Your task to perform on an android device: change the clock display to show seconds Image 0: 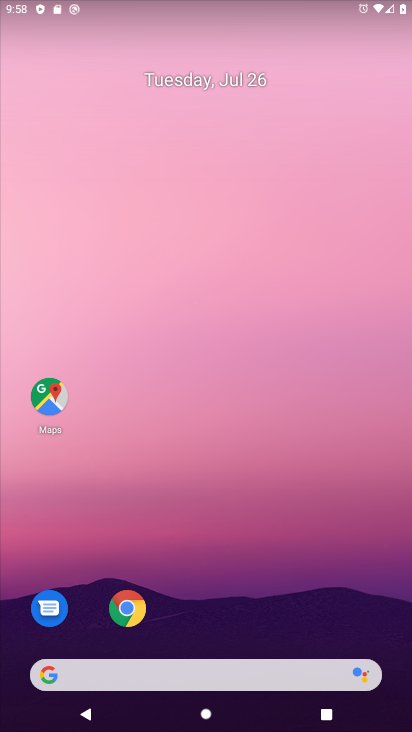
Step 0: drag from (234, 721) to (223, 233)
Your task to perform on an android device: change the clock display to show seconds Image 1: 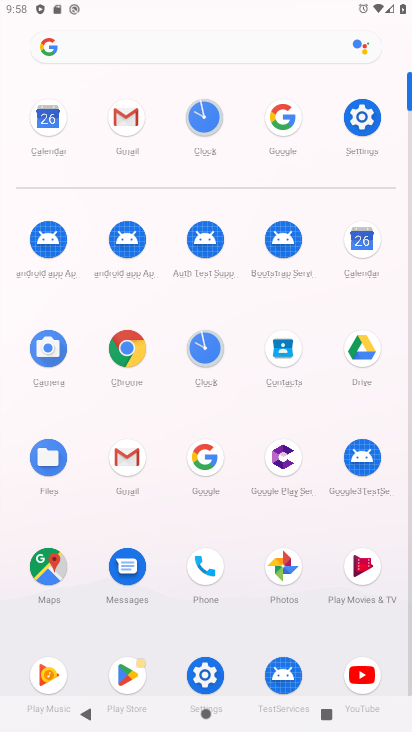
Step 1: click (201, 348)
Your task to perform on an android device: change the clock display to show seconds Image 2: 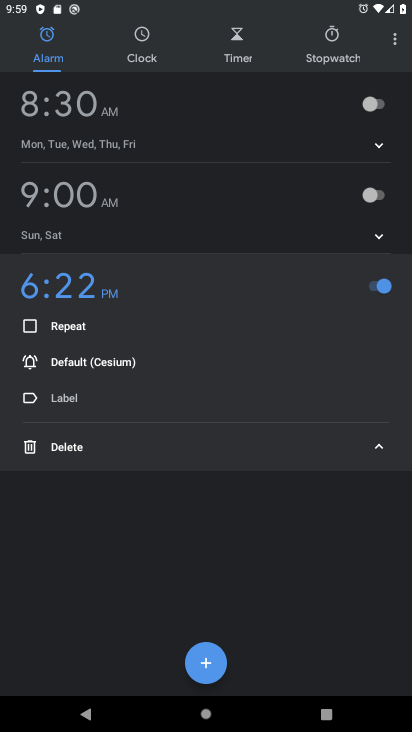
Step 2: click (396, 42)
Your task to perform on an android device: change the clock display to show seconds Image 3: 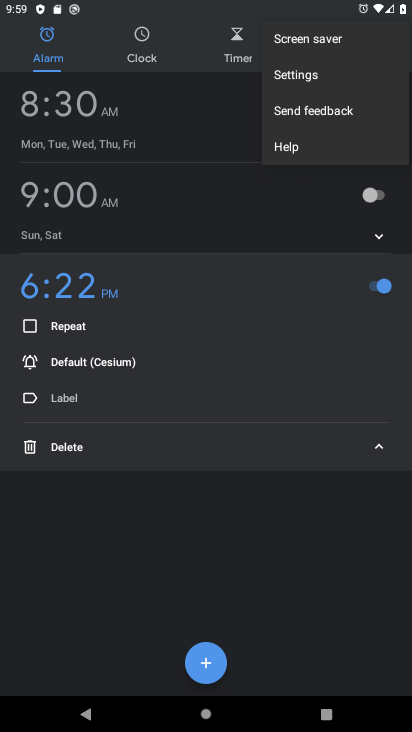
Step 3: click (303, 67)
Your task to perform on an android device: change the clock display to show seconds Image 4: 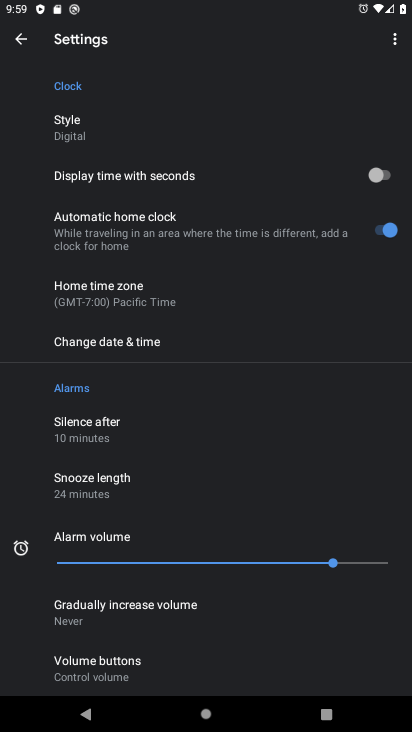
Step 4: click (380, 174)
Your task to perform on an android device: change the clock display to show seconds Image 5: 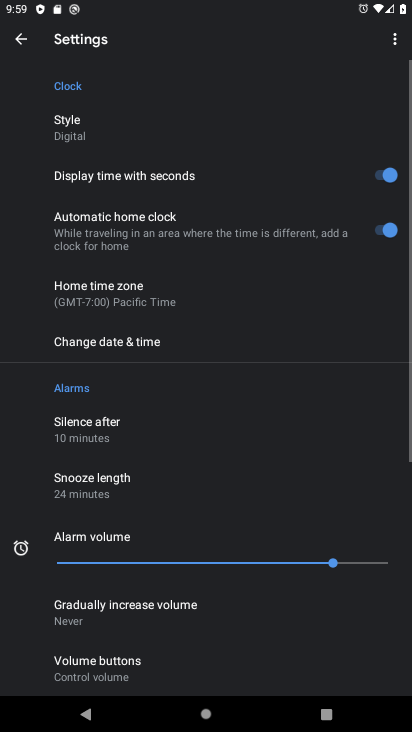
Step 5: task complete